Your task to perform on an android device: How much does a 2 bedroom apartment rent for in Atlanta? Image 0: 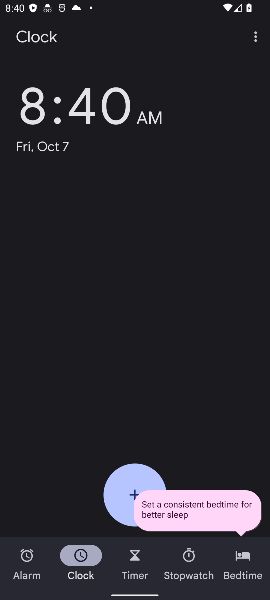
Step 0: press home button
Your task to perform on an android device: How much does a 2 bedroom apartment rent for in Atlanta? Image 1: 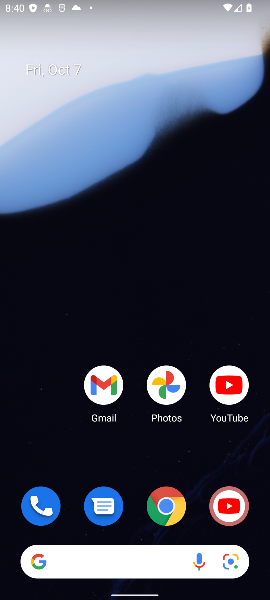
Step 1: click (166, 501)
Your task to perform on an android device: How much does a 2 bedroom apartment rent for in Atlanta? Image 2: 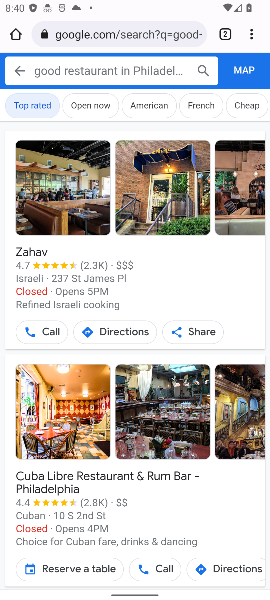
Step 2: click (162, 36)
Your task to perform on an android device: How much does a 2 bedroom apartment rent for in Atlanta? Image 3: 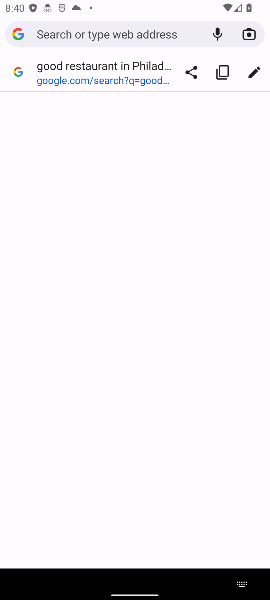
Step 3: type "2 bedroom apartment rent for in Atlanta"
Your task to perform on an android device: How much does a 2 bedroom apartment rent for in Atlanta? Image 4: 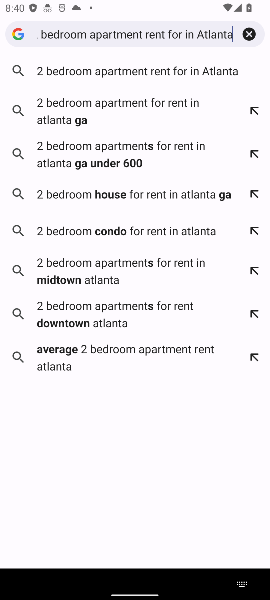
Step 4: click (168, 70)
Your task to perform on an android device: How much does a 2 bedroom apartment rent for in Atlanta? Image 5: 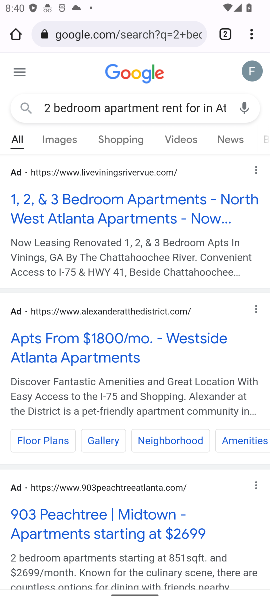
Step 5: drag from (146, 371) to (209, 56)
Your task to perform on an android device: How much does a 2 bedroom apartment rent for in Atlanta? Image 6: 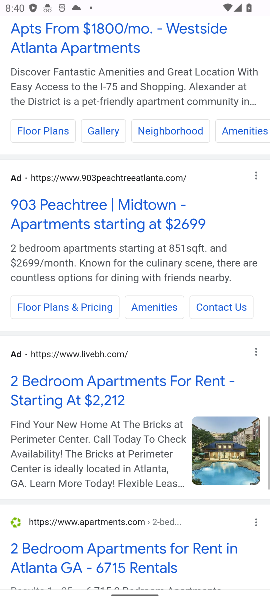
Step 6: click (152, 377)
Your task to perform on an android device: How much does a 2 bedroom apartment rent for in Atlanta? Image 7: 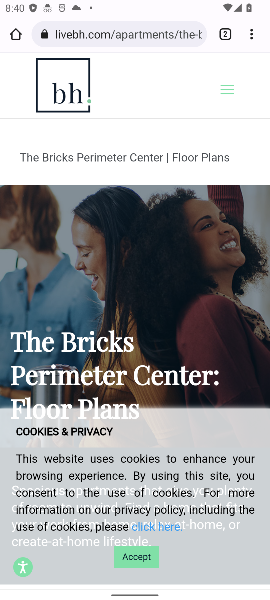
Step 7: click (148, 560)
Your task to perform on an android device: How much does a 2 bedroom apartment rent for in Atlanta? Image 8: 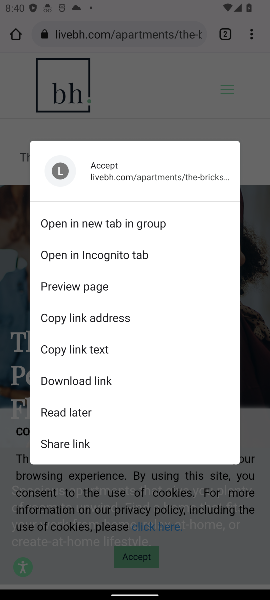
Step 8: click (257, 411)
Your task to perform on an android device: How much does a 2 bedroom apartment rent for in Atlanta? Image 9: 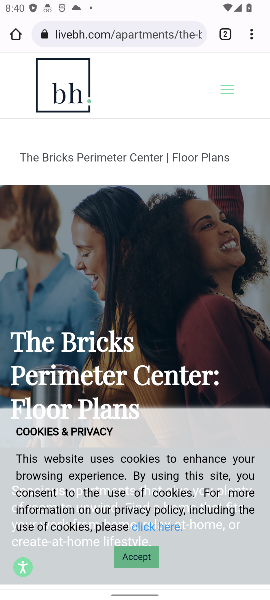
Step 9: drag from (117, 454) to (225, 168)
Your task to perform on an android device: How much does a 2 bedroom apartment rent for in Atlanta? Image 10: 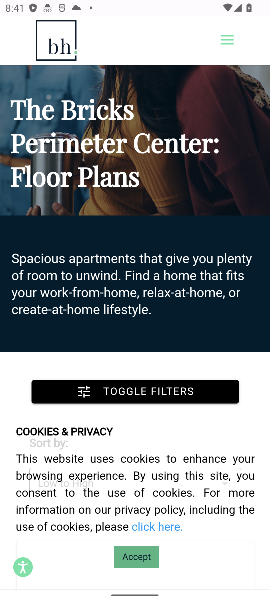
Step 10: click (140, 557)
Your task to perform on an android device: How much does a 2 bedroom apartment rent for in Atlanta? Image 11: 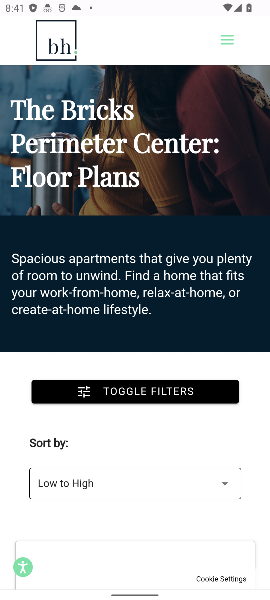
Step 11: task complete